Your task to perform on an android device: Show me productivity apps on the Play Store Image 0: 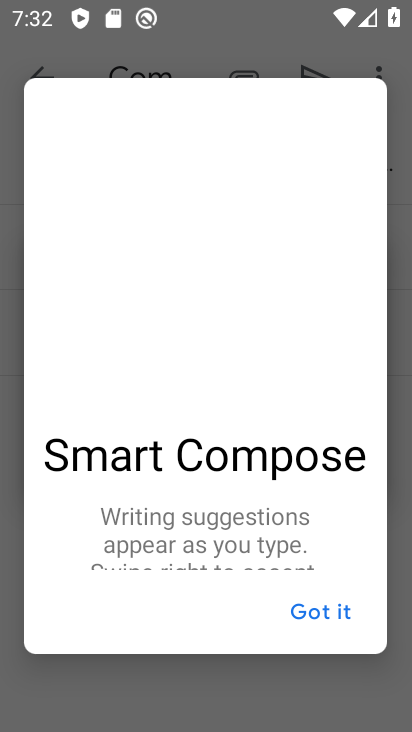
Step 0: press home button
Your task to perform on an android device: Show me productivity apps on the Play Store Image 1: 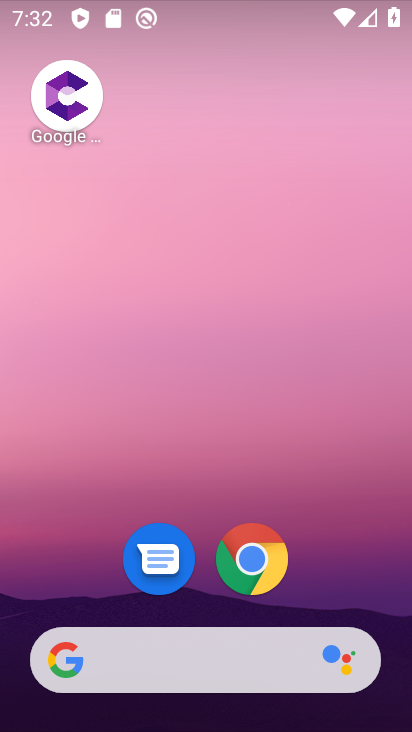
Step 1: drag from (221, 658) to (238, 361)
Your task to perform on an android device: Show me productivity apps on the Play Store Image 2: 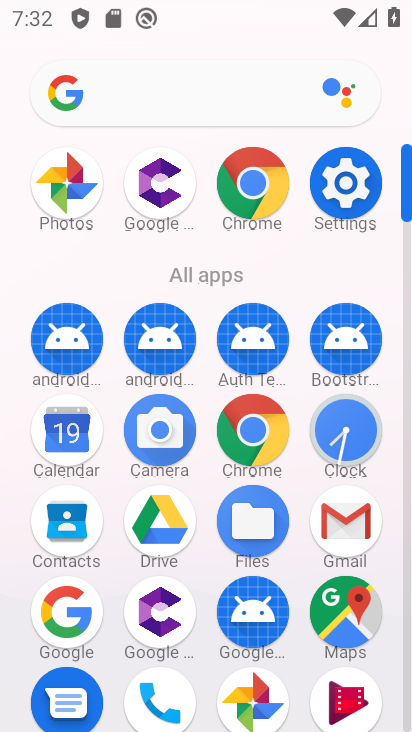
Step 2: drag from (215, 642) to (243, 360)
Your task to perform on an android device: Show me productivity apps on the Play Store Image 3: 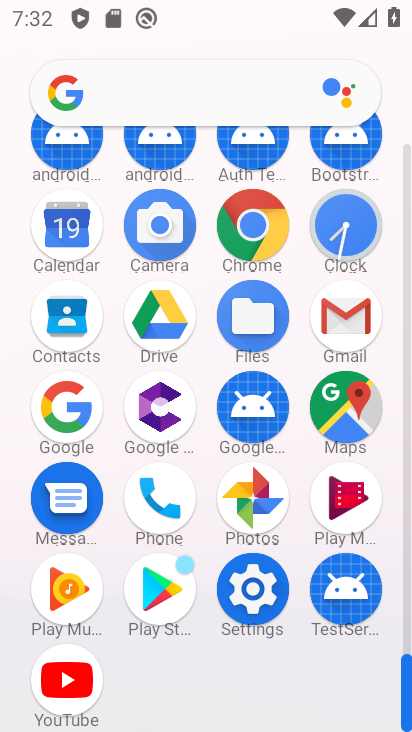
Step 3: click (164, 593)
Your task to perform on an android device: Show me productivity apps on the Play Store Image 4: 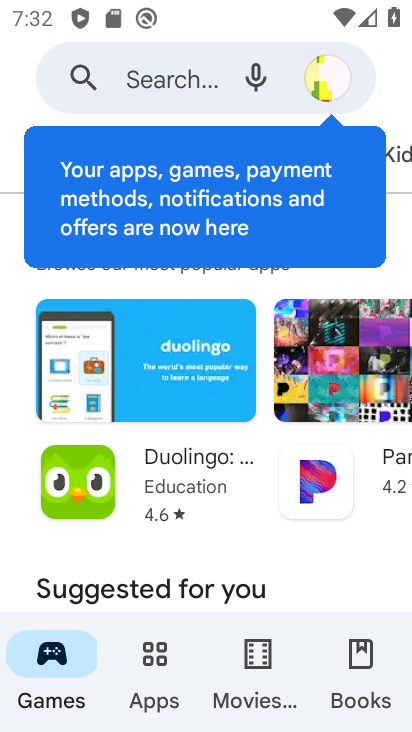
Step 4: click (169, 658)
Your task to perform on an android device: Show me productivity apps on the Play Store Image 5: 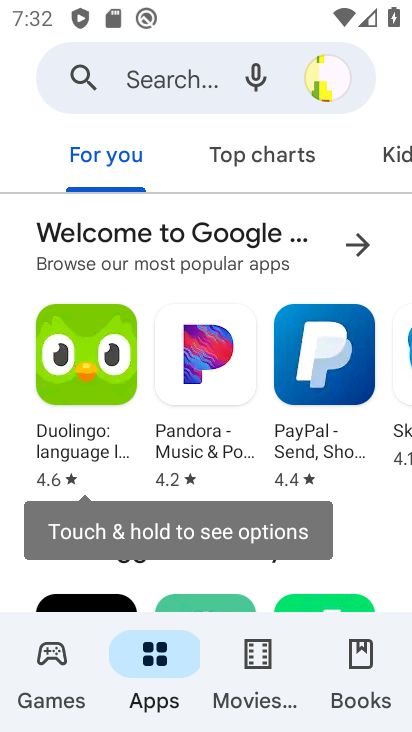
Step 5: task complete